Your task to perform on an android device: What's the weather going to be this weekend? Image 0: 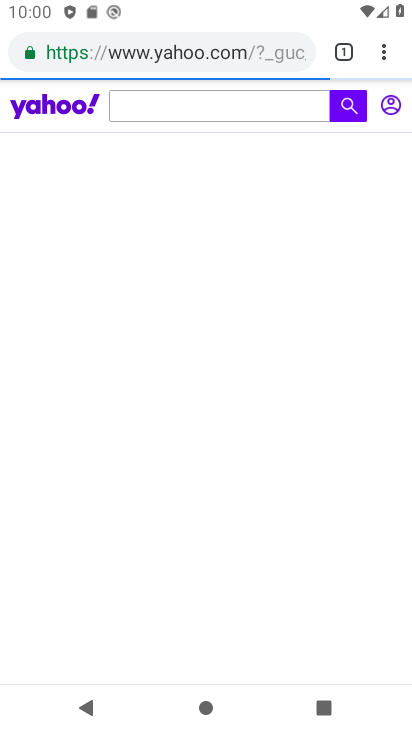
Step 0: press home button
Your task to perform on an android device: What's the weather going to be this weekend? Image 1: 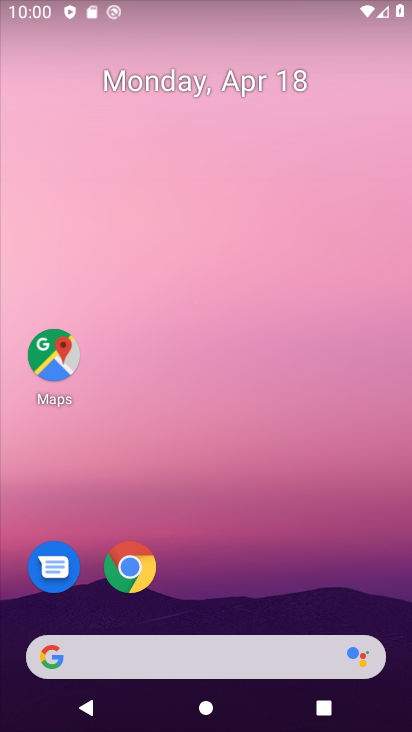
Step 1: click (119, 542)
Your task to perform on an android device: What's the weather going to be this weekend? Image 2: 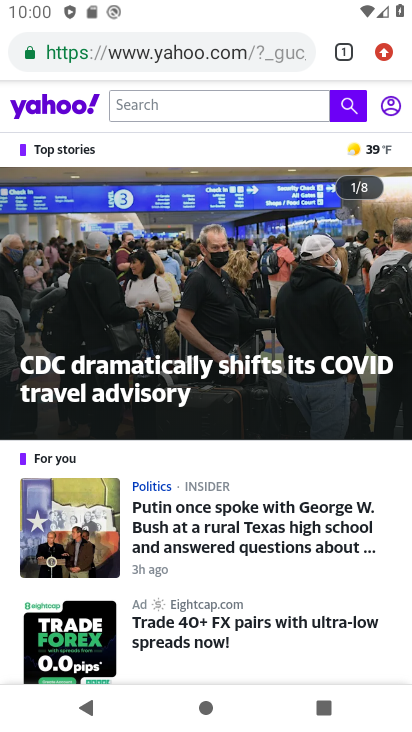
Step 2: click (338, 52)
Your task to perform on an android device: What's the weather going to be this weekend? Image 3: 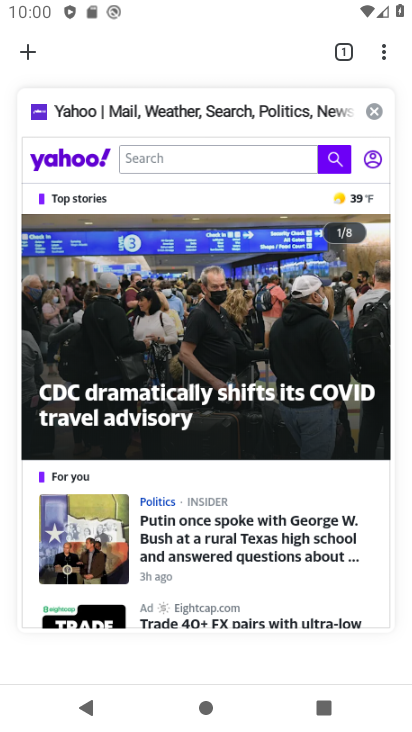
Step 3: click (32, 52)
Your task to perform on an android device: What's the weather going to be this weekend? Image 4: 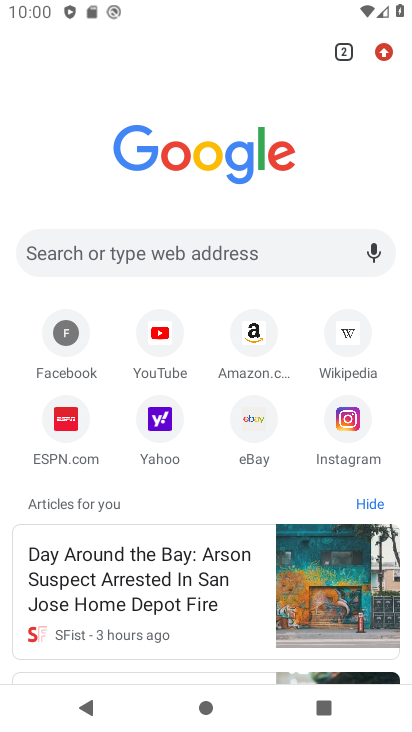
Step 4: click (142, 251)
Your task to perform on an android device: What's the weather going to be this weekend? Image 5: 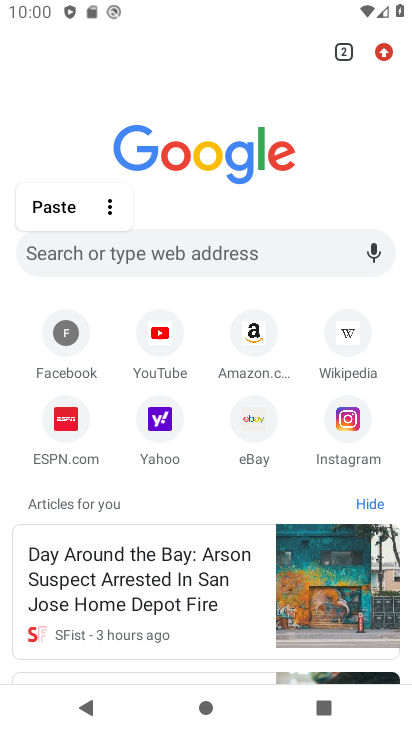
Step 5: type "weather going to be this weekend"
Your task to perform on an android device: What's the weather going to be this weekend? Image 6: 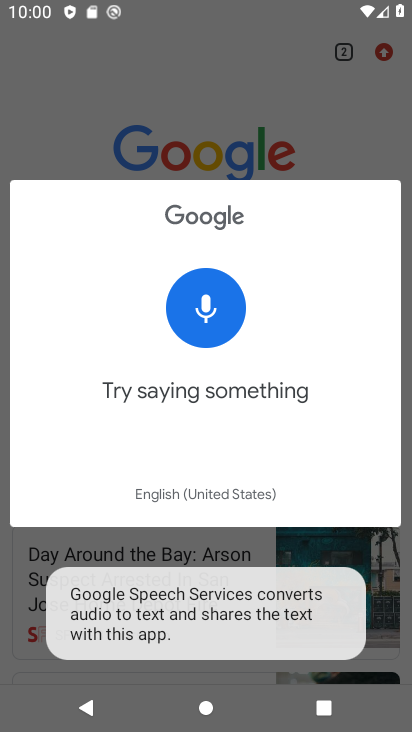
Step 6: click (167, 254)
Your task to perform on an android device: What's the weather going to be this weekend? Image 7: 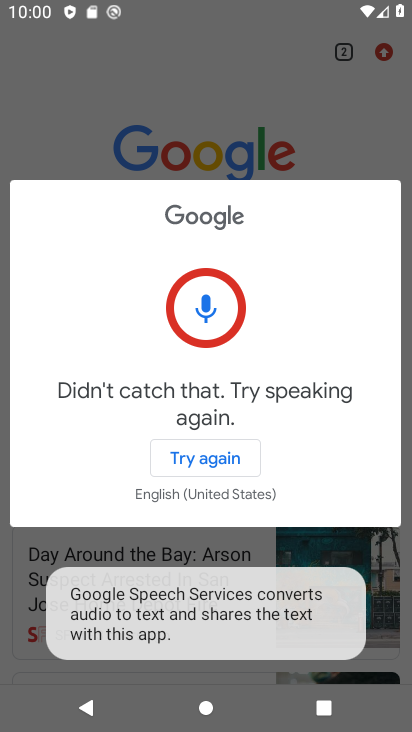
Step 7: click (193, 113)
Your task to perform on an android device: What's the weather going to be this weekend? Image 8: 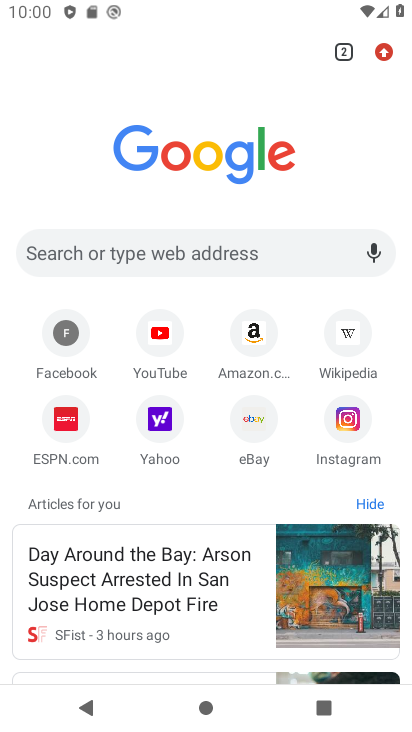
Step 8: click (148, 251)
Your task to perform on an android device: What's the weather going to be this weekend? Image 9: 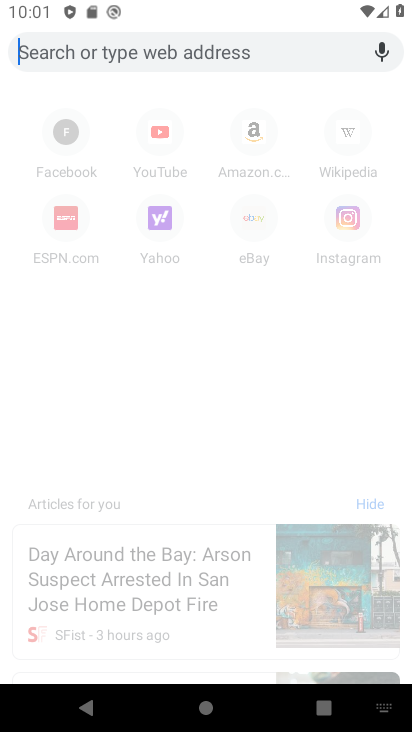
Step 9: type "weather going to be this weekend"
Your task to perform on an android device: What's the weather going to be this weekend? Image 10: 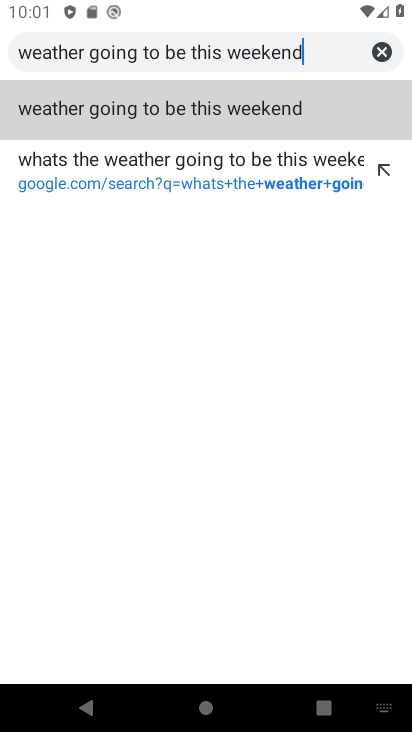
Step 10: click (109, 169)
Your task to perform on an android device: What's the weather going to be this weekend? Image 11: 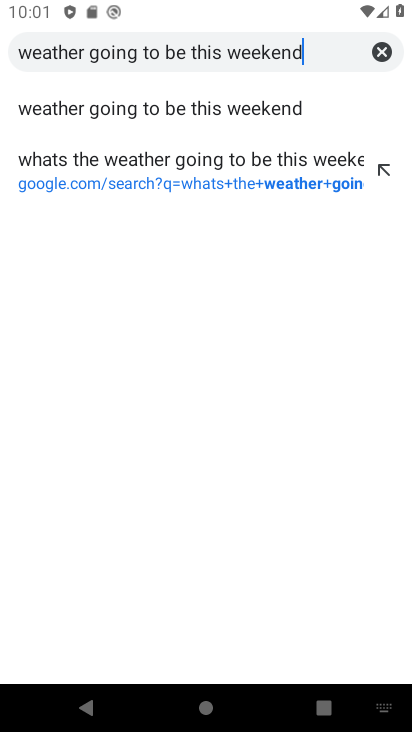
Step 11: click (67, 172)
Your task to perform on an android device: What's the weather going to be this weekend? Image 12: 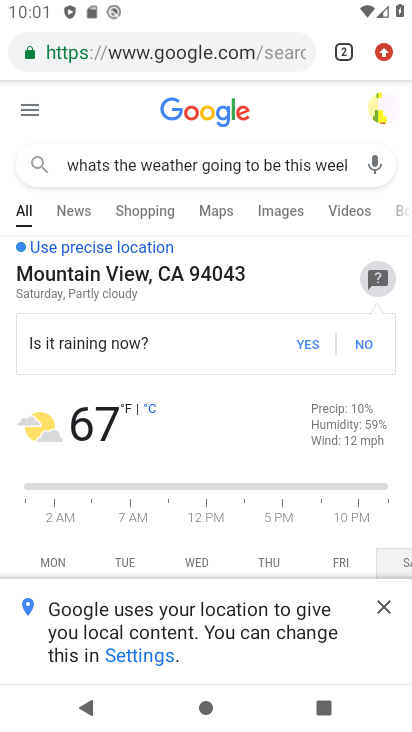
Step 12: task complete